Your task to perform on an android device: turn off improve location accuracy Image 0: 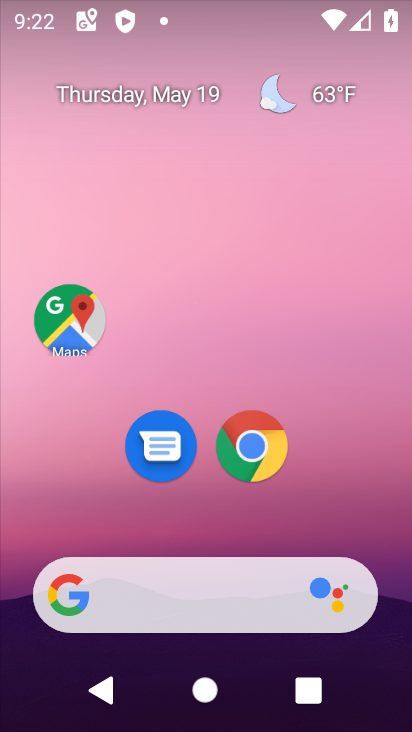
Step 0: drag from (218, 536) to (283, 37)
Your task to perform on an android device: turn off improve location accuracy Image 1: 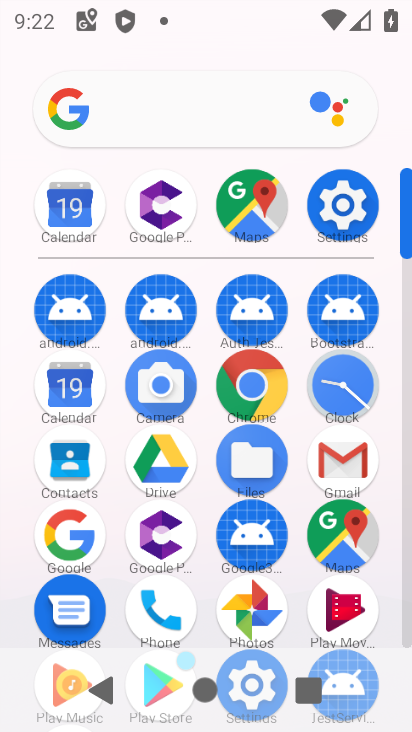
Step 1: click (352, 194)
Your task to perform on an android device: turn off improve location accuracy Image 2: 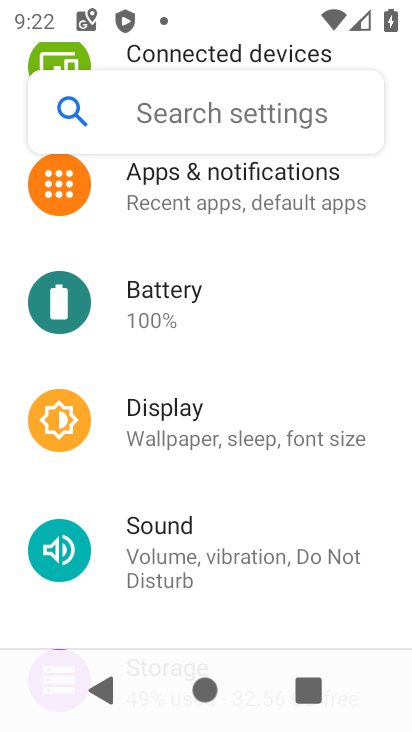
Step 2: drag from (228, 286) to (268, 102)
Your task to perform on an android device: turn off improve location accuracy Image 3: 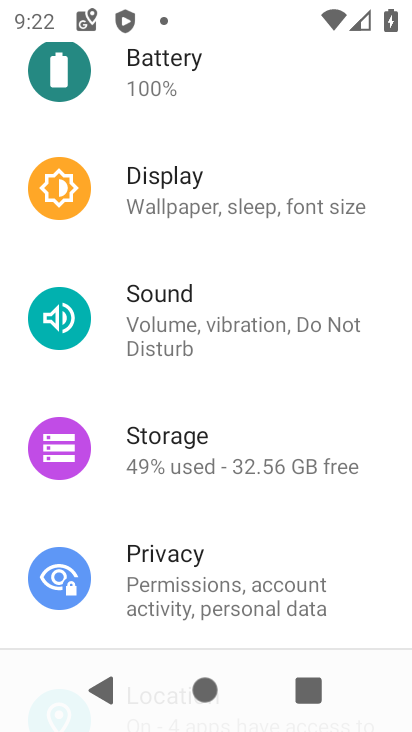
Step 3: drag from (220, 507) to (256, 282)
Your task to perform on an android device: turn off improve location accuracy Image 4: 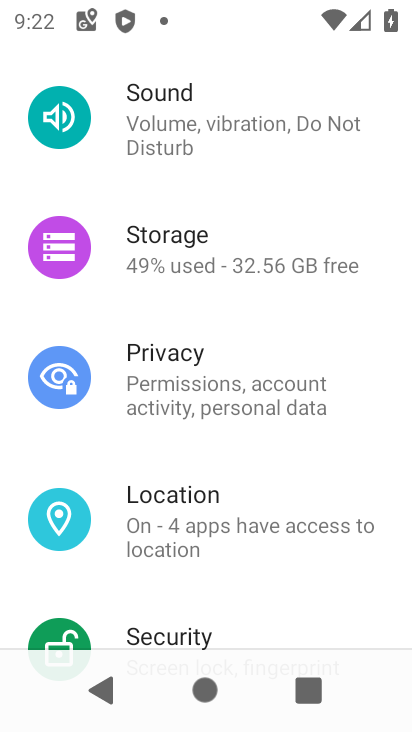
Step 4: click (217, 516)
Your task to perform on an android device: turn off improve location accuracy Image 5: 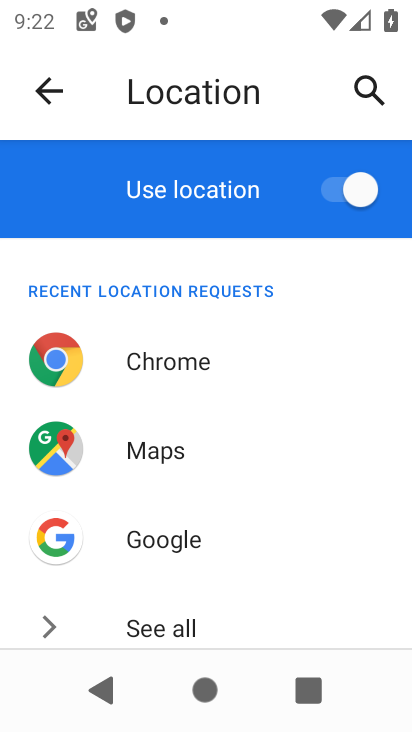
Step 5: drag from (180, 560) to (221, 397)
Your task to perform on an android device: turn off improve location accuracy Image 6: 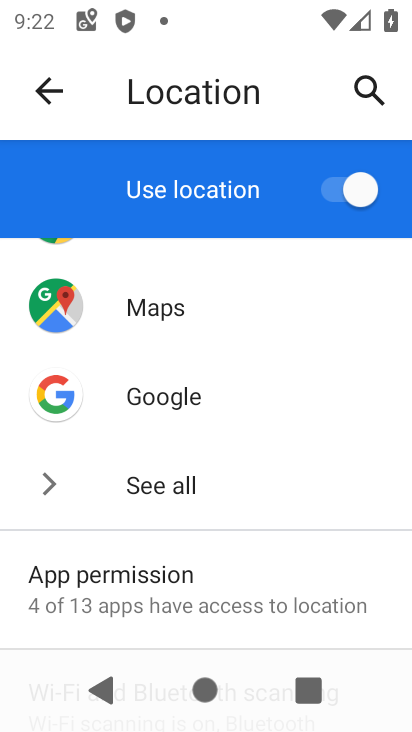
Step 6: drag from (202, 573) to (260, 317)
Your task to perform on an android device: turn off improve location accuracy Image 7: 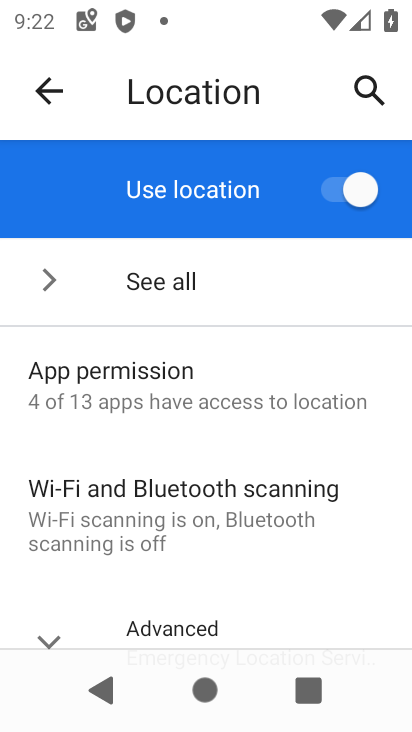
Step 7: drag from (196, 554) to (228, 391)
Your task to perform on an android device: turn off improve location accuracy Image 8: 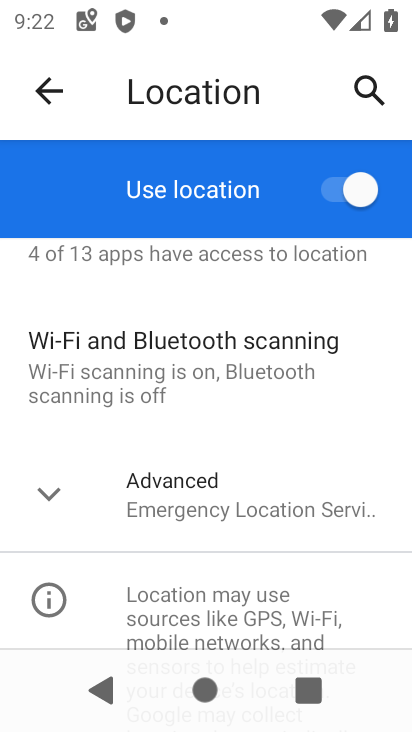
Step 8: click (34, 618)
Your task to perform on an android device: turn off improve location accuracy Image 9: 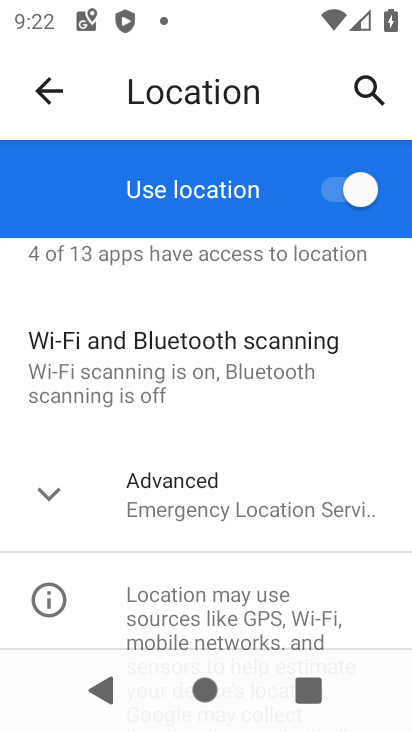
Step 9: click (60, 497)
Your task to perform on an android device: turn off improve location accuracy Image 10: 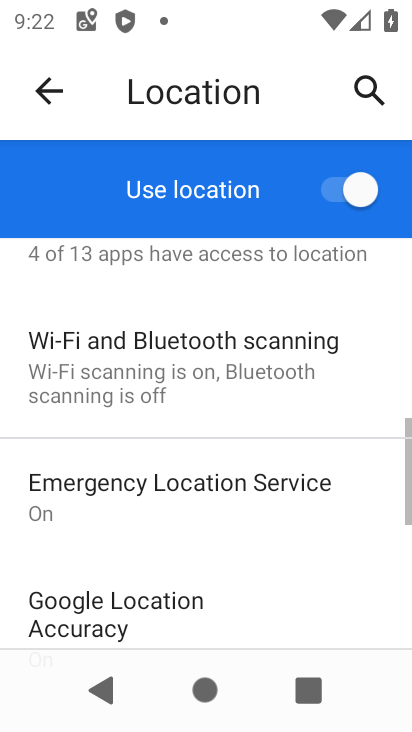
Step 10: drag from (197, 546) to (222, 424)
Your task to perform on an android device: turn off improve location accuracy Image 11: 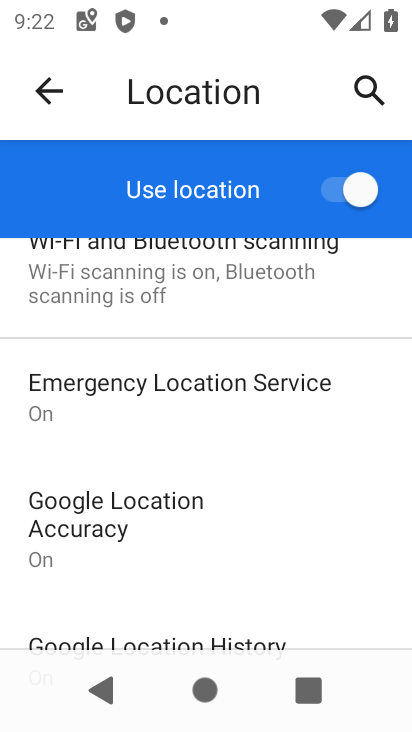
Step 11: click (145, 538)
Your task to perform on an android device: turn off improve location accuracy Image 12: 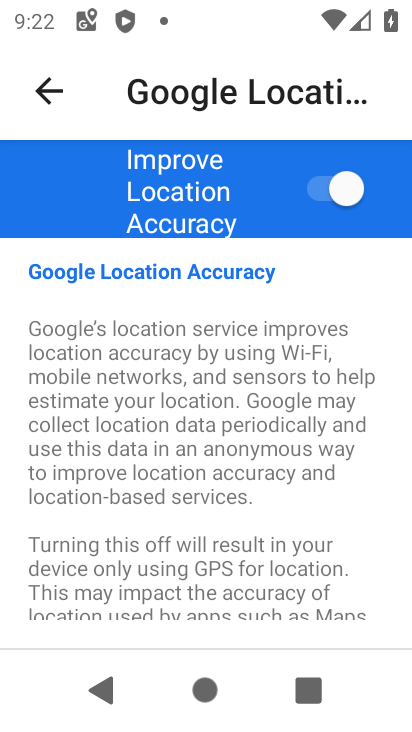
Step 12: click (308, 208)
Your task to perform on an android device: turn off improve location accuracy Image 13: 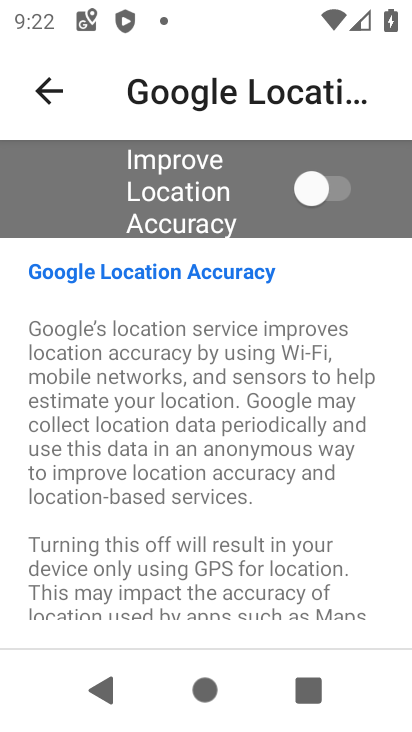
Step 13: task complete